Your task to perform on an android device: see tabs open on other devices in the chrome app Image 0: 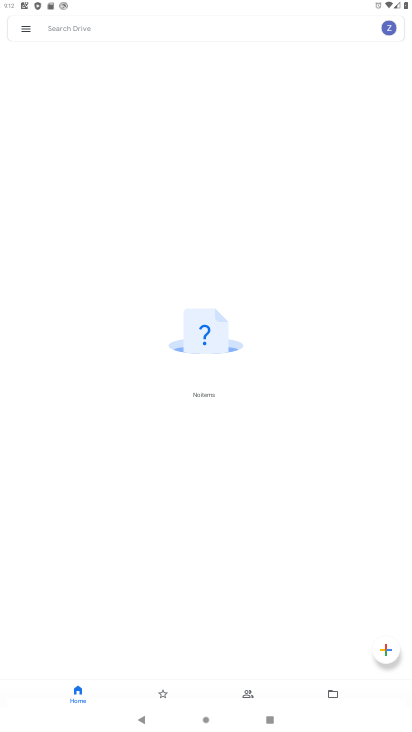
Step 0: press home button
Your task to perform on an android device: see tabs open on other devices in the chrome app Image 1: 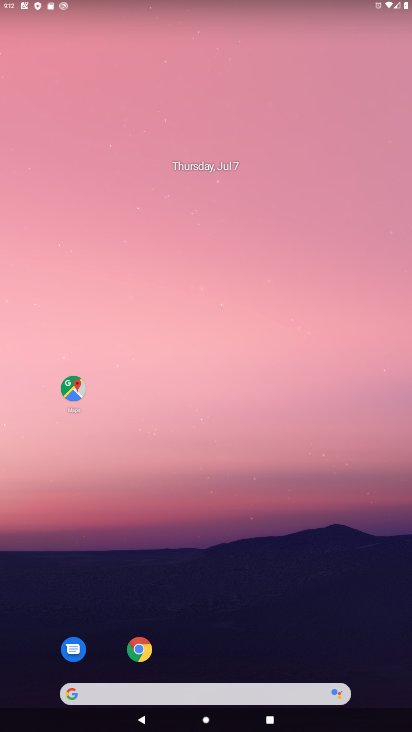
Step 1: drag from (162, 689) to (193, 182)
Your task to perform on an android device: see tabs open on other devices in the chrome app Image 2: 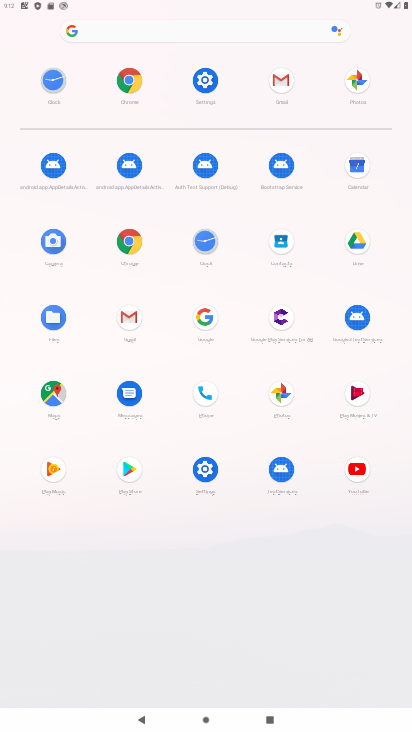
Step 2: click (134, 233)
Your task to perform on an android device: see tabs open on other devices in the chrome app Image 3: 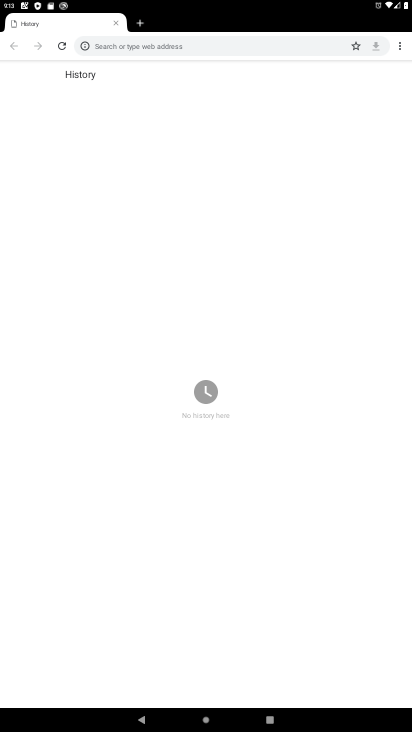
Step 3: task complete